Your task to perform on an android device: Open settings Image 0: 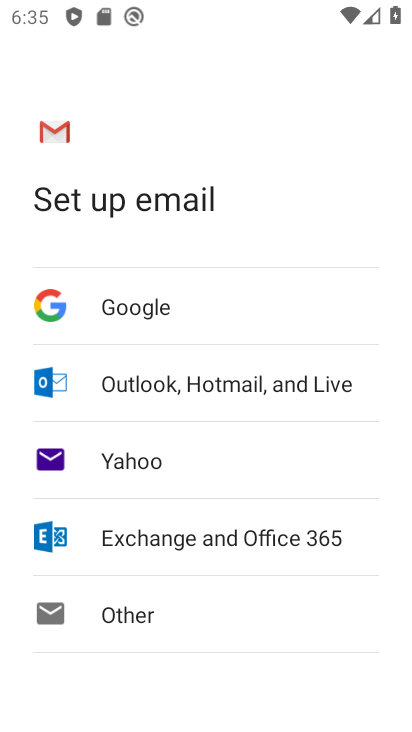
Step 0: press home button
Your task to perform on an android device: Open settings Image 1: 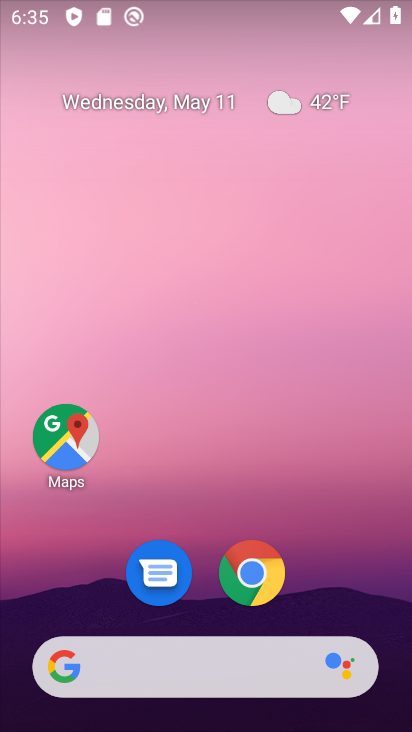
Step 1: drag from (305, 583) to (274, 95)
Your task to perform on an android device: Open settings Image 2: 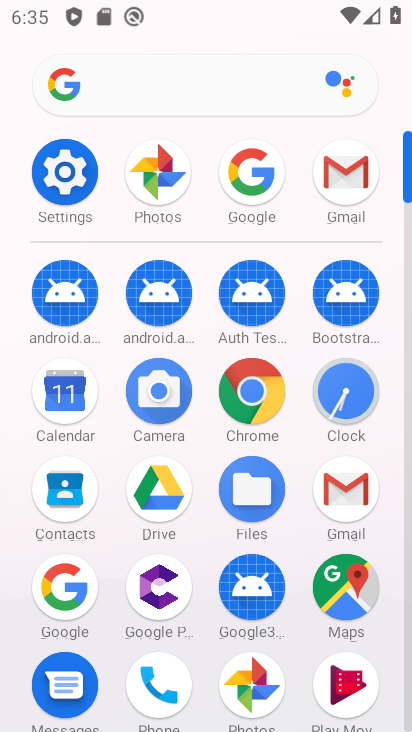
Step 2: click (68, 197)
Your task to perform on an android device: Open settings Image 3: 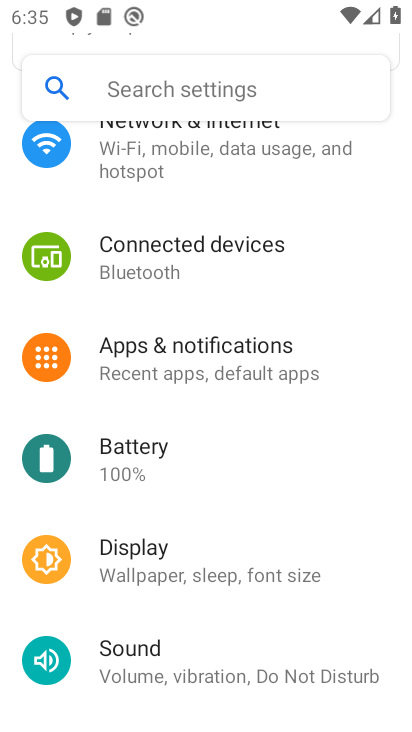
Step 3: task complete